Your task to perform on an android device: open chrome privacy settings Image 0: 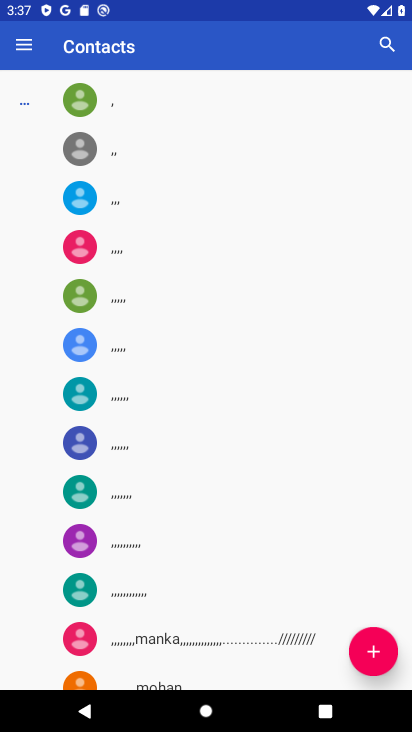
Step 0: press home button
Your task to perform on an android device: open chrome privacy settings Image 1: 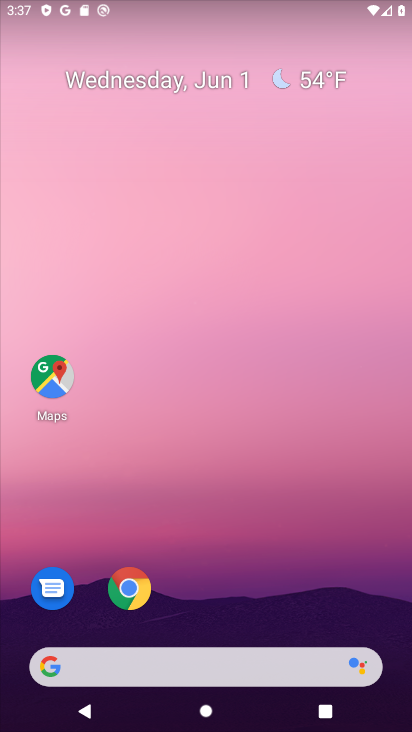
Step 1: click (135, 589)
Your task to perform on an android device: open chrome privacy settings Image 2: 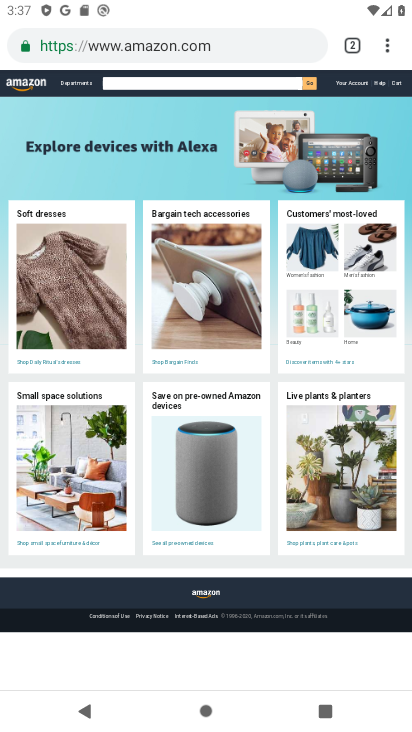
Step 2: click (387, 49)
Your task to perform on an android device: open chrome privacy settings Image 3: 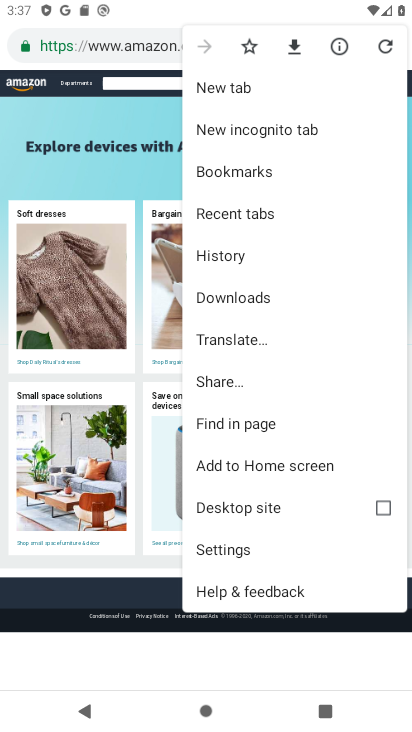
Step 3: click (244, 559)
Your task to perform on an android device: open chrome privacy settings Image 4: 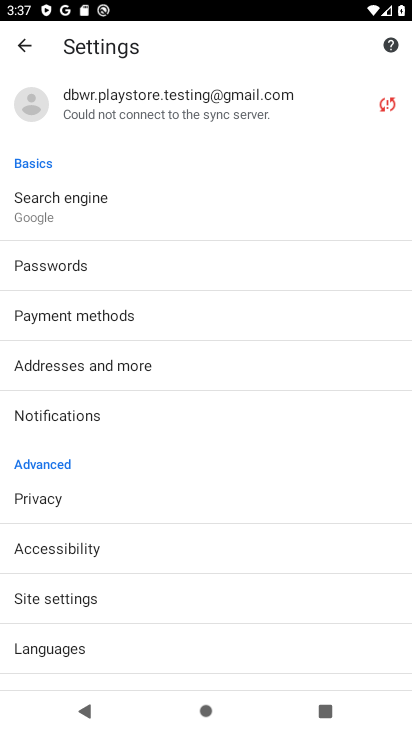
Step 4: click (49, 503)
Your task to perform on an android device: open chrome privacy settings Image 5: 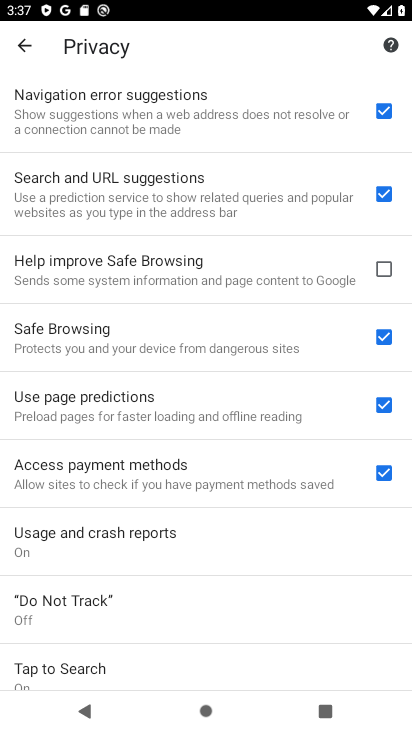
Step 5: task complete